Your task to perform on an android device: remove spam from my inbox in the gmail app Image 0: 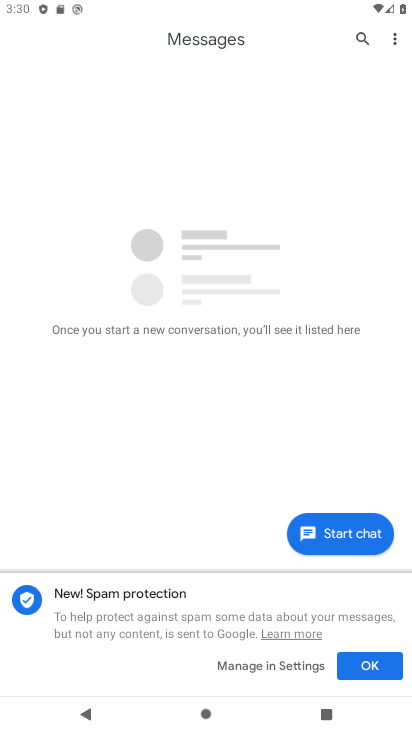
Step 0: press home button
Your task to perform on an android device: remove spam from my inbox in the gmail app Image 1: 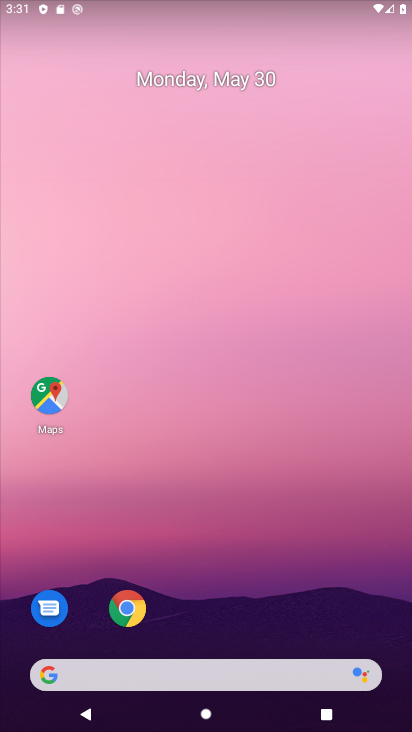
Step 1: drag from (220, 620) to (279, 82)
Your task to perform on an android device: remove spam from my inbox in the gmail app Image 2: 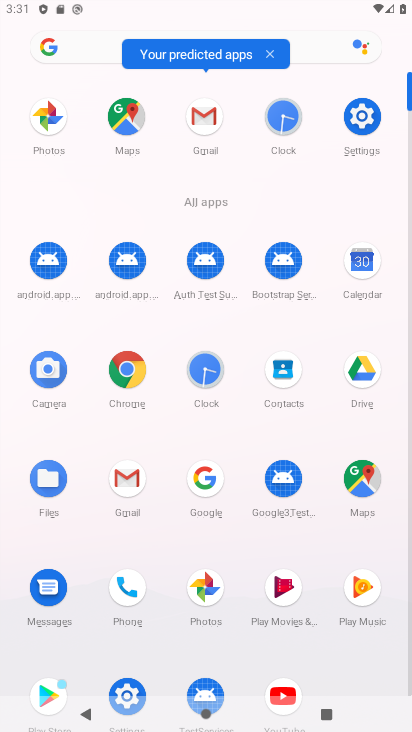
Step 2: click (131, 493)
Your task to perform on an android device: remove spam from my inbox in the gmail app Image 3: 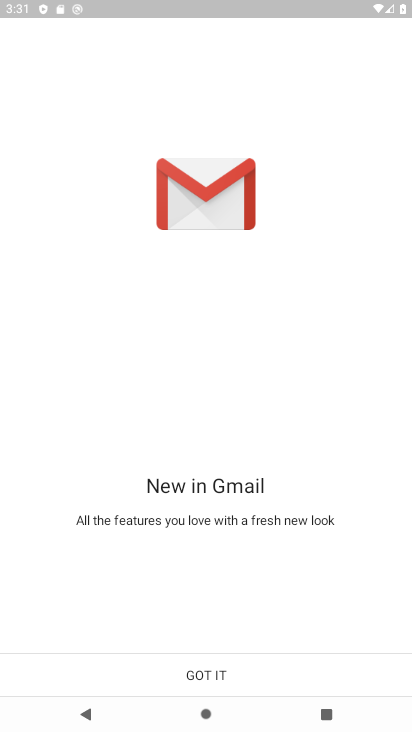
Step 3: click (246, 669)
Your task to perform on an android device: remove spam from my inbox in the gmail app Image 4: 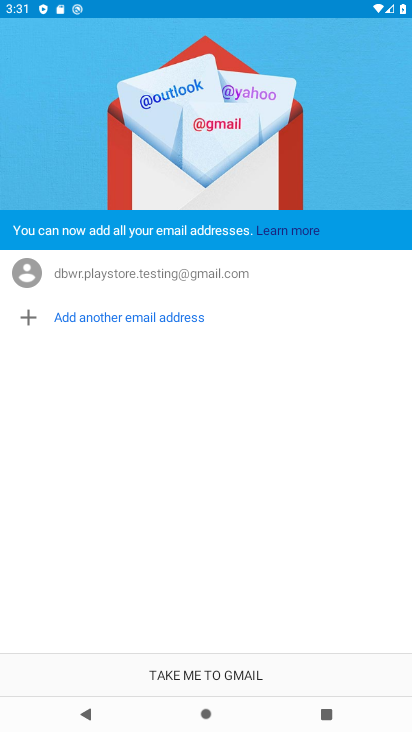
Step 4: click (246, 669)
Your task to perform on an android device: remove spam from my inbox in the gmail app Image 5: 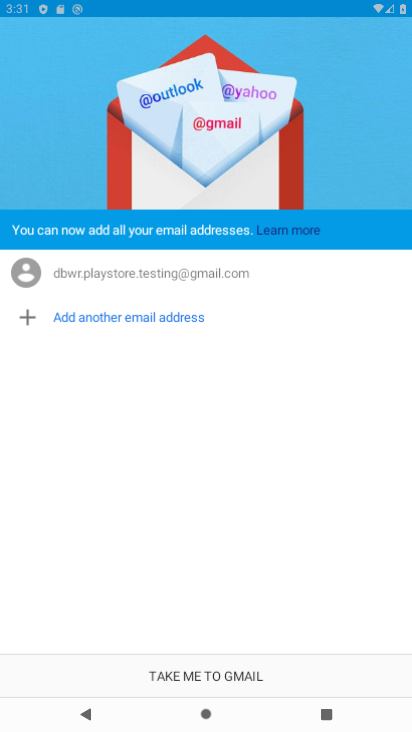
Step 5: click (246, 671)
Your task to perform on an android device: remove spam from my inbox in the gmail app Image 6: 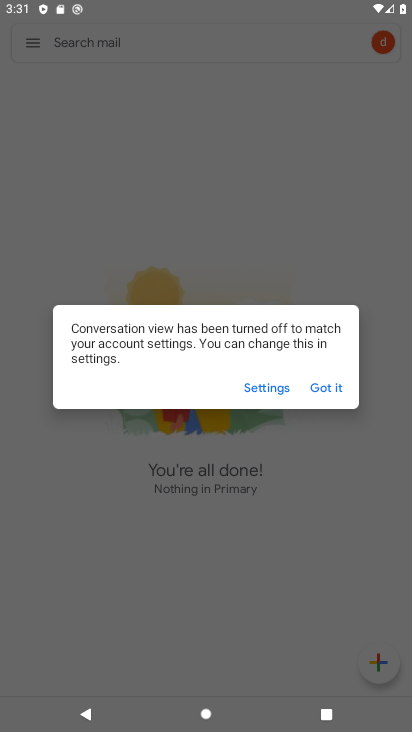
Step 6: click (323, 397)
Your task to perform on an android device: remove spam from my inbox in the gmail app Image 7: 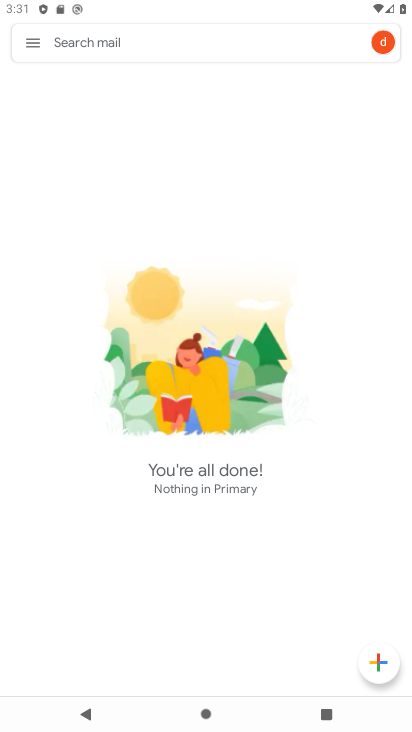
Step 7: click (35, 36)
Your task to perform on an android device: remove spam from my inbox in the gmail app Image 8: 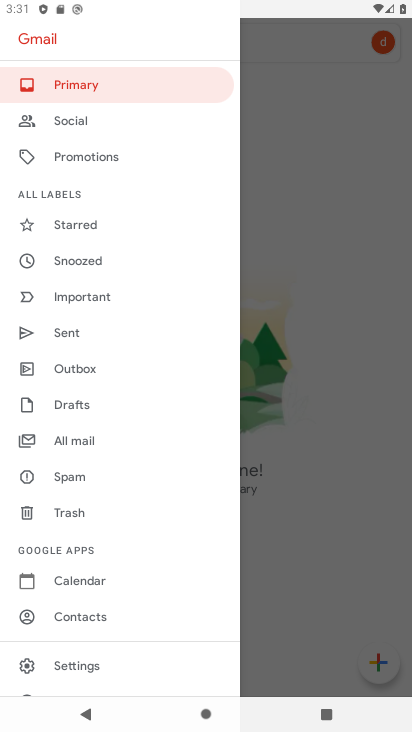
Step 8: click (108, 489)
Your task to perform on an android device: remove spam from my inbox in the gmail app Image 9: 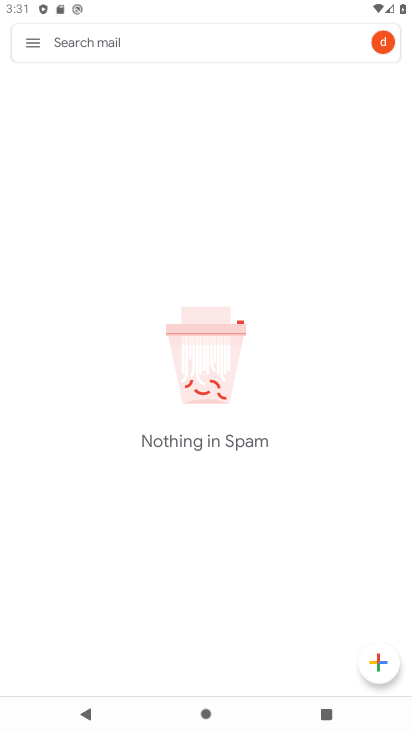
Step 9: task complete